Your task to perform on an android device: Open Chrome and go to settings Image 0: 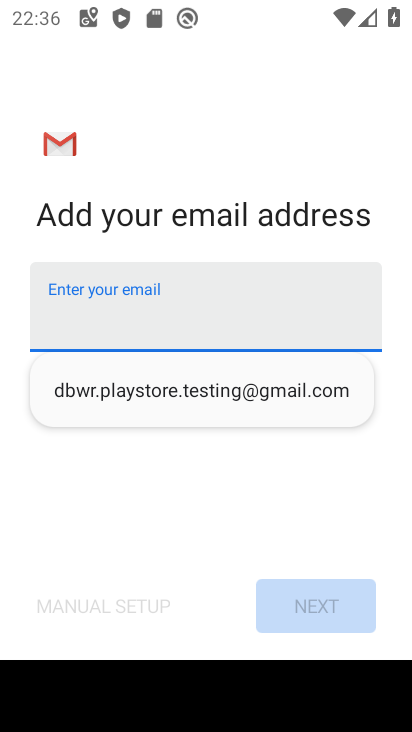
Step 0: press home button
Your task to perform on an android device: Open Chrome and go to settings Image 1: 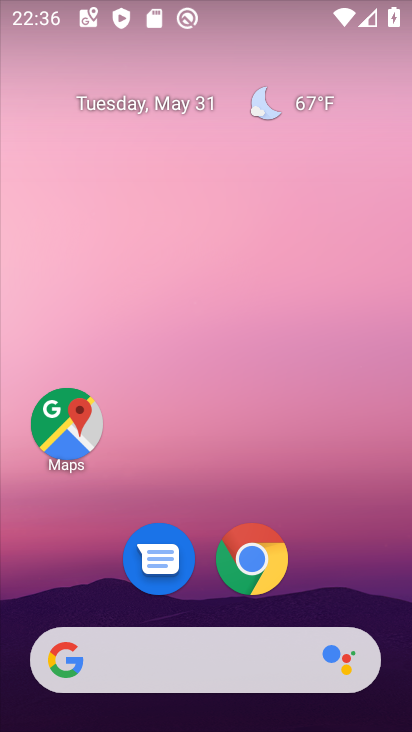
Step 1: click (257, 563)
Your task to perform on an android device: Open Chrome and go to settings Image 2: 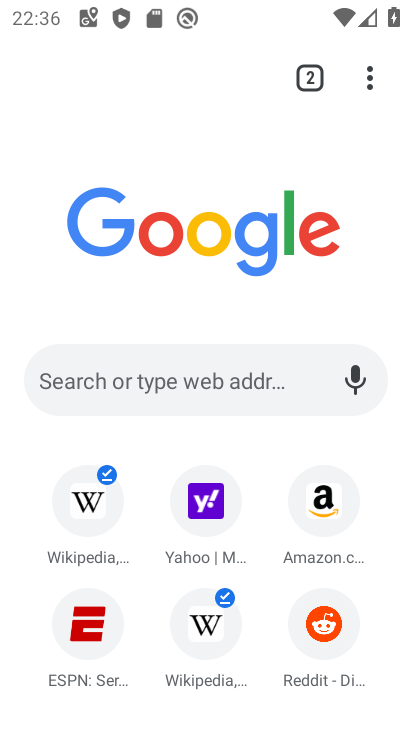
Step 2: click (359, 88)
Your task to perform on an android device: Open Chrome and go to settings Image 3: 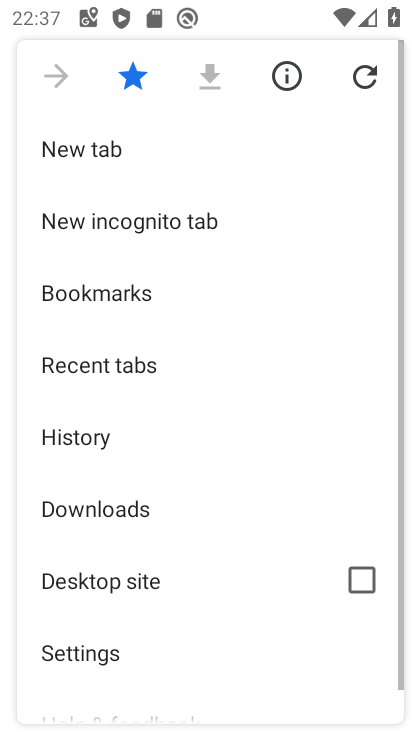
Step 3: drag from (107, 624) to (135, 469)
Your task to perform on an android device: Open Chrome and go to settings Image 4: 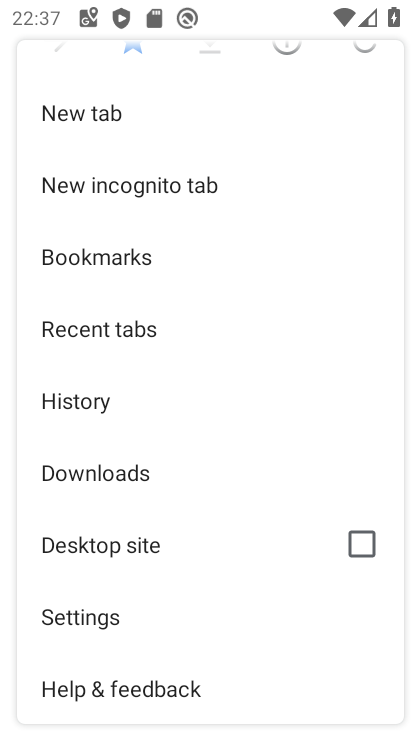
Step 4: click (118, 615)
Your task to perform on an android device: Open Chrome and go to settings Image 5: 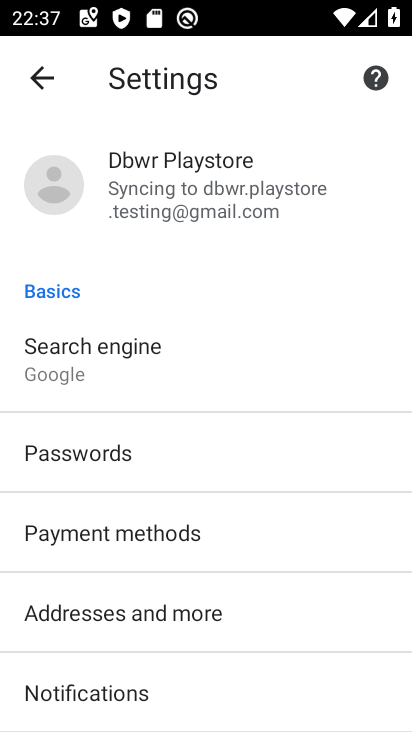
Step 5: task complete